Your task to perform on an android device: turn pop-ups off in chrome Image 0: 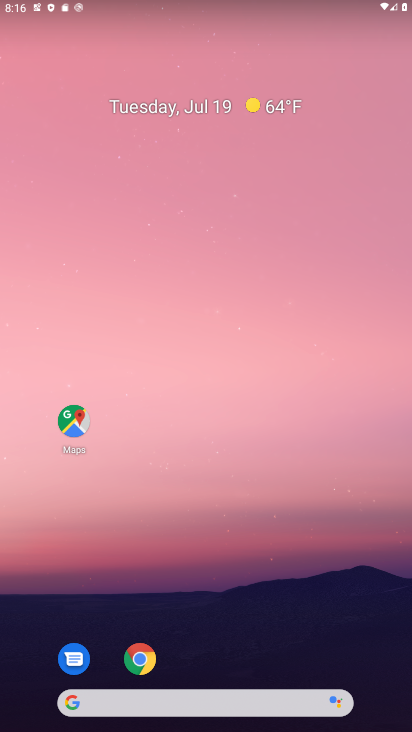
Step 0: click (136, 647)
Your task to perform on an android device: turn pop-ups off in chrome Image 1: 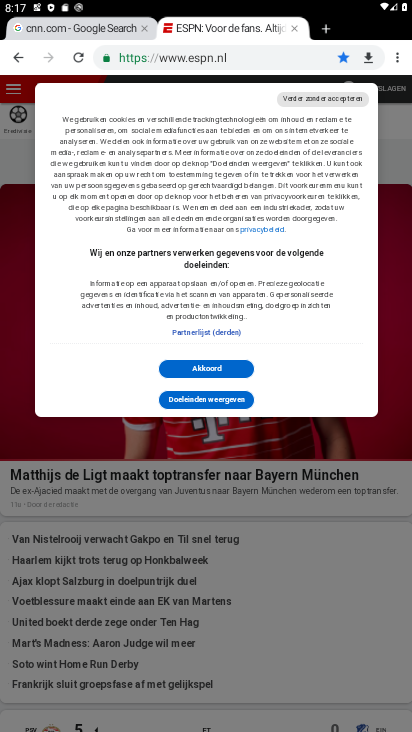
Step 1: click (401, 52)
Your task to perform on an android device: turn pop-ups off in chrome Image 2: 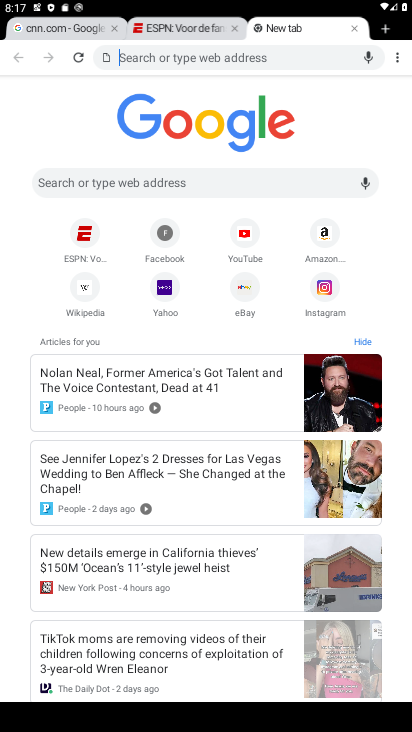
Step 2: click (401, 52)
Your task to perform on an android device: turn pop-ups off in chrome Image 3: 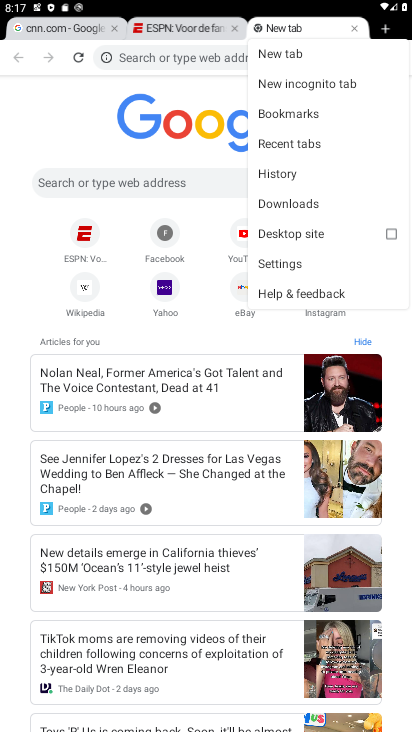
Step 3: click (288, 259)
Your task to perform on an android device: turn pop-ups off in chrome Image 4: 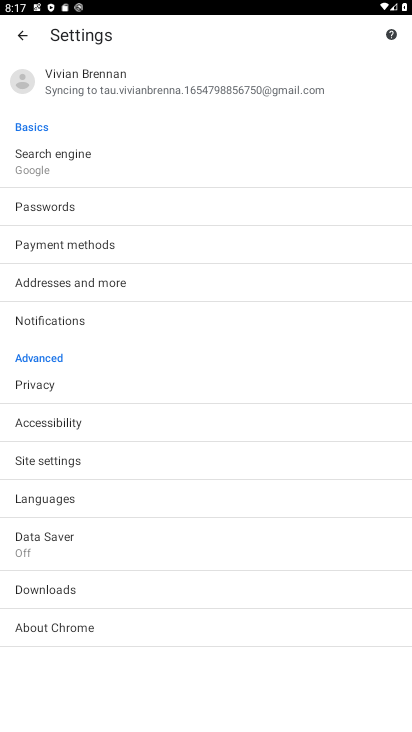
Step 4: click (93, 465)
Your task to perform on an android device: turn pop-ups off in chrome Image 5: 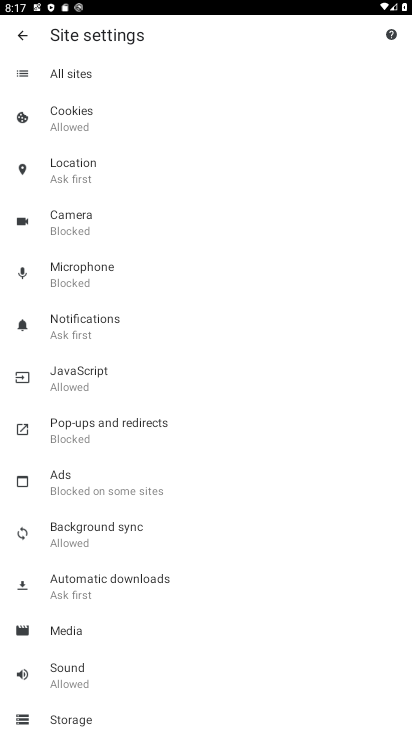
Step 5: click (128, 439)
Your task to perform on an android device: turn pop-ups off in chrome Image 6: 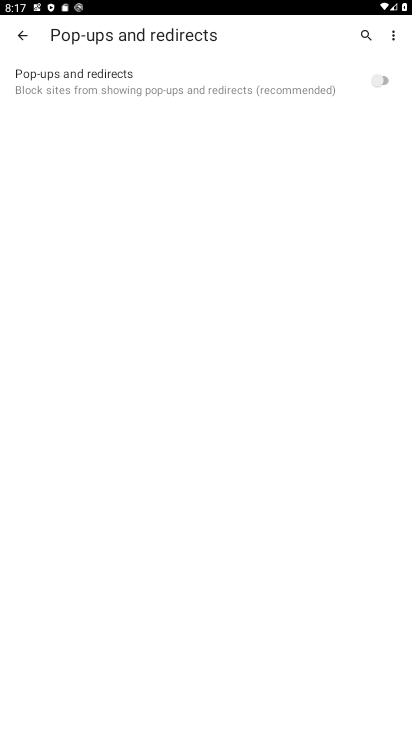
Step 6: click (389, 77)
Your task to perform on an android device: turn pop-ups off in chrome Image 7: 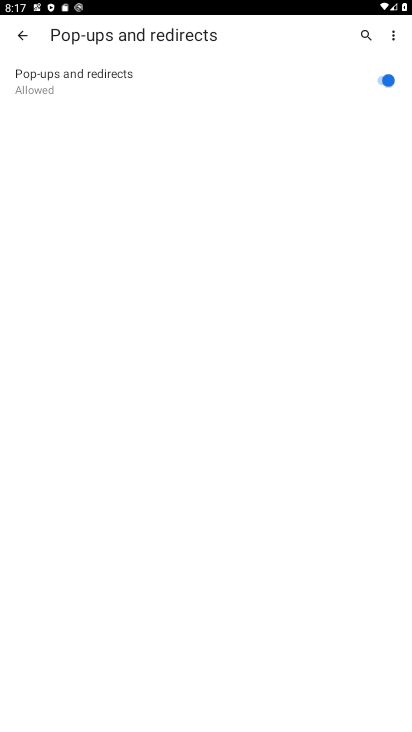
Step 7: task complete